Your task to perform on an android device: Go to Maps Image 0: 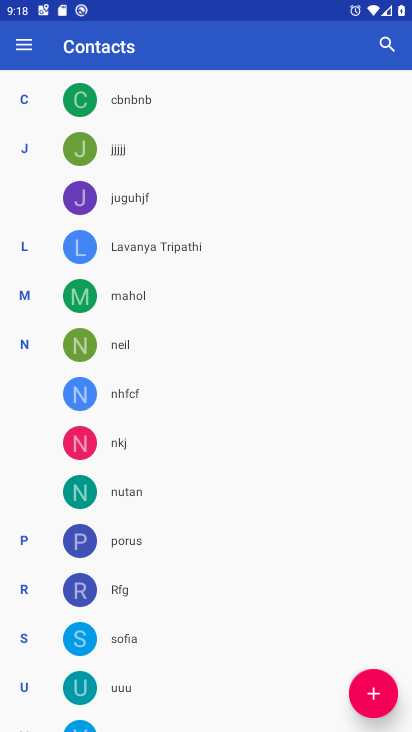
Step 0: press home button
Your task to perform on an android device: Go to Maps Image 1: 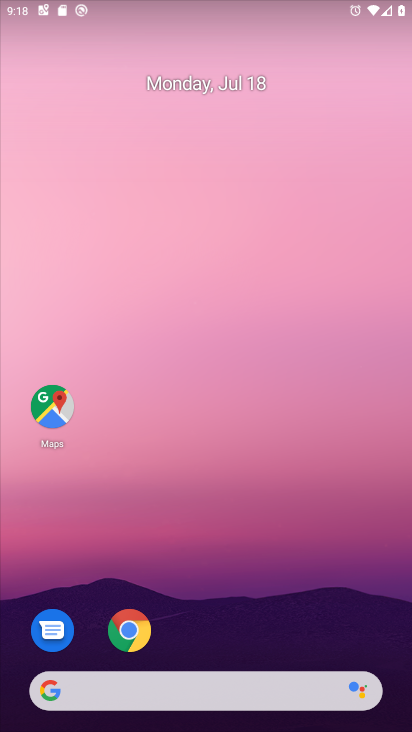
Step 1: drag from (196, 641) to (192, 577)
Your task to perform on an android device: Go to Maps Image 2: 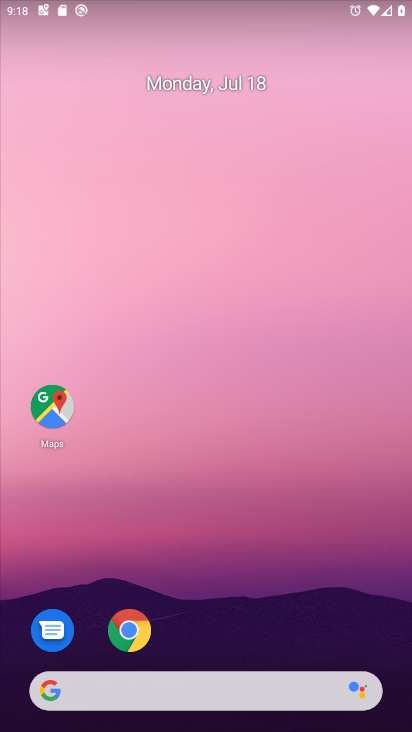
Step 2: click (49, 407)
Your task to perform on an android device: Go to Maps Image 3: 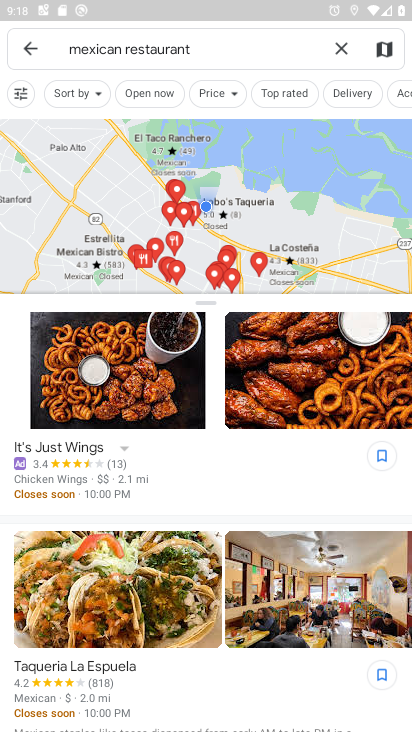
Step 3: task complete